Your task to perform on an android device: Search for seafood restaurants on Google Maps Image 0: 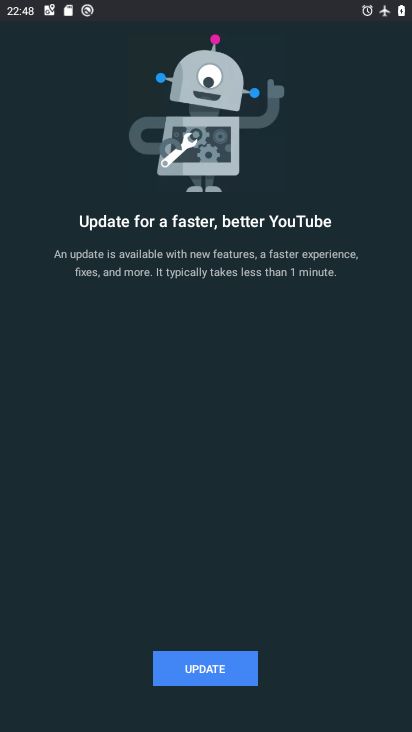
Step 0: press home button
Your task to perform on an android device: Search for seafood restaurants on Google Maps Image 1: 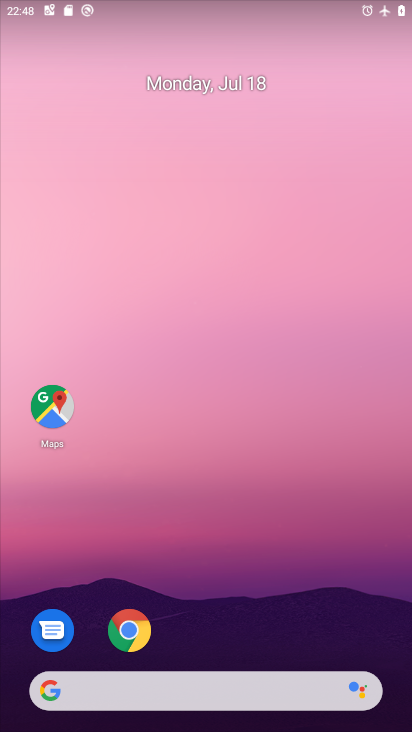
Step 1: click (50, 425)
Your task to perform on an android device: Search for seafood restaurants on Google Maps Image 2: 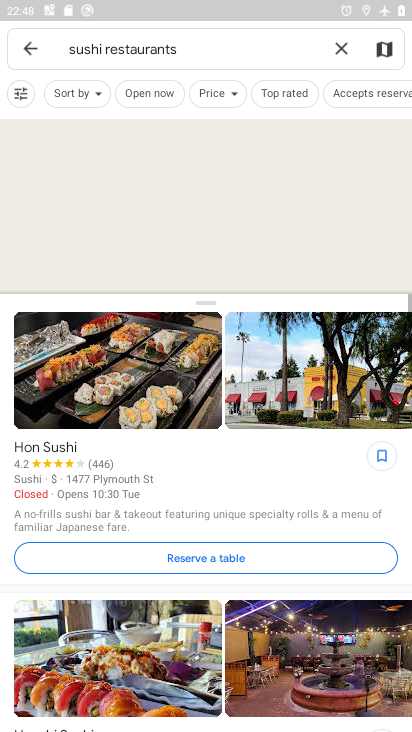
Step 2: click (336, 50)
Your task to perform on an android device: Search for seafood restaurants on Google Maps Image 3: 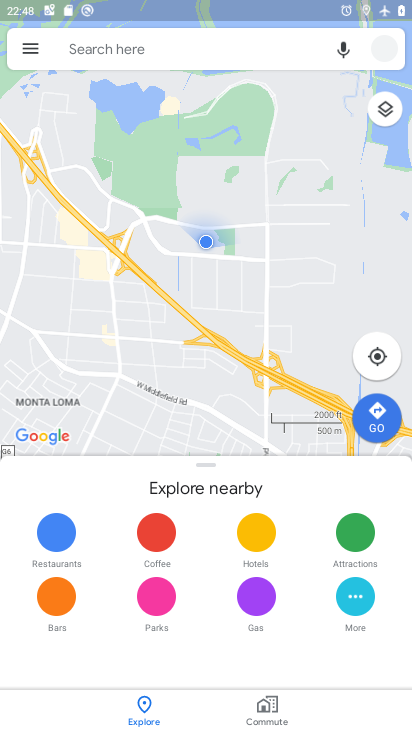
Step 3: click (219, 50)
Your task to perform on an android device: Search for seafood restaurants on Google Maps Image 4: 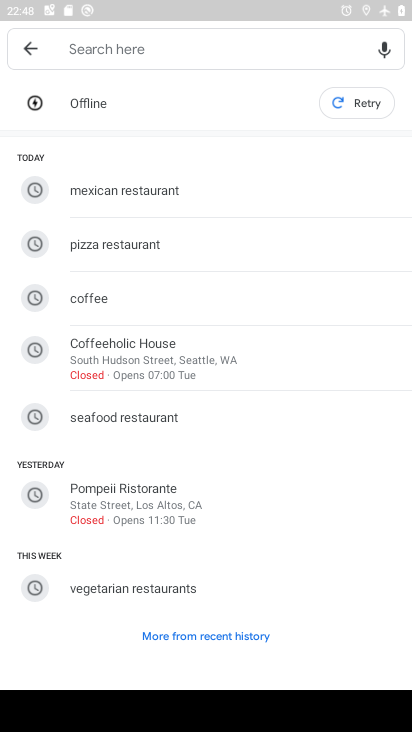
Step 4: click (190, 426)
Your task to perform on an android device: Search for seafood restaurants on Google Maps Image 5: 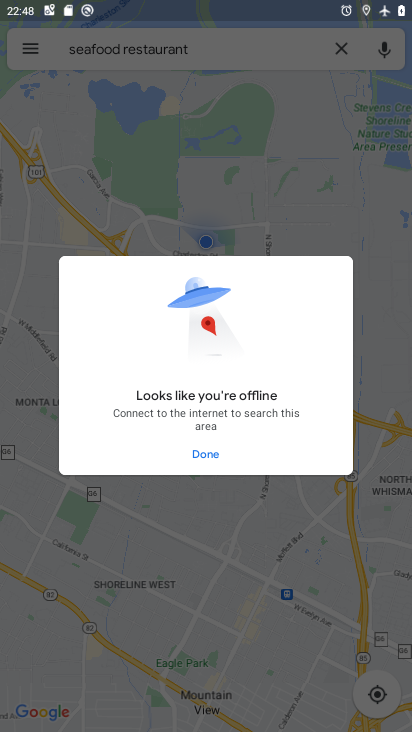
Step 5: task complete